Your task to perform on an android device: Go to eBay Image 0: 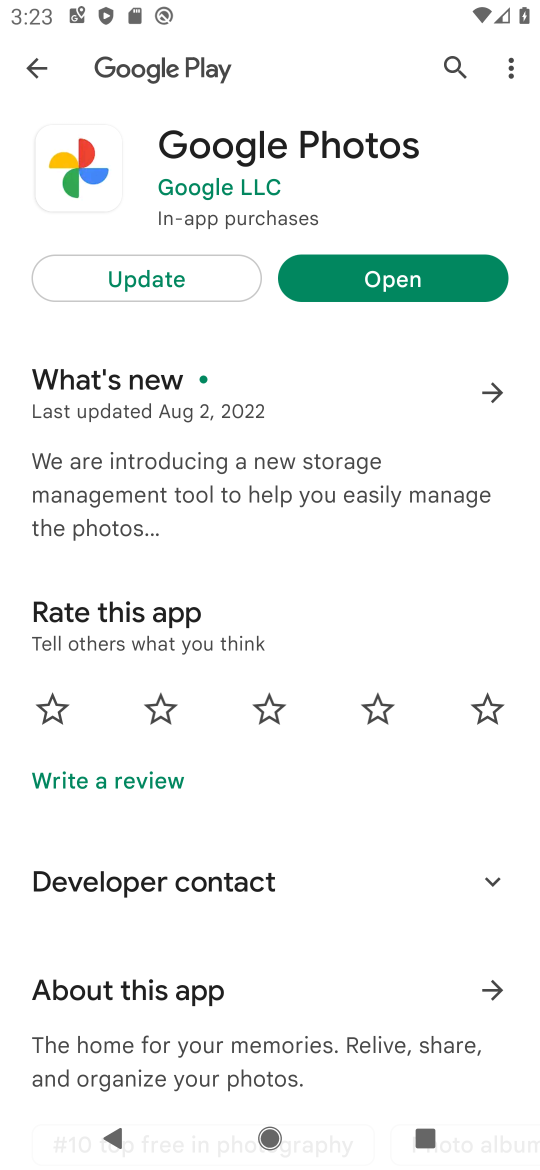
Step 0: press home button
Your task to perform on an android device: Go to eBay Image 1: 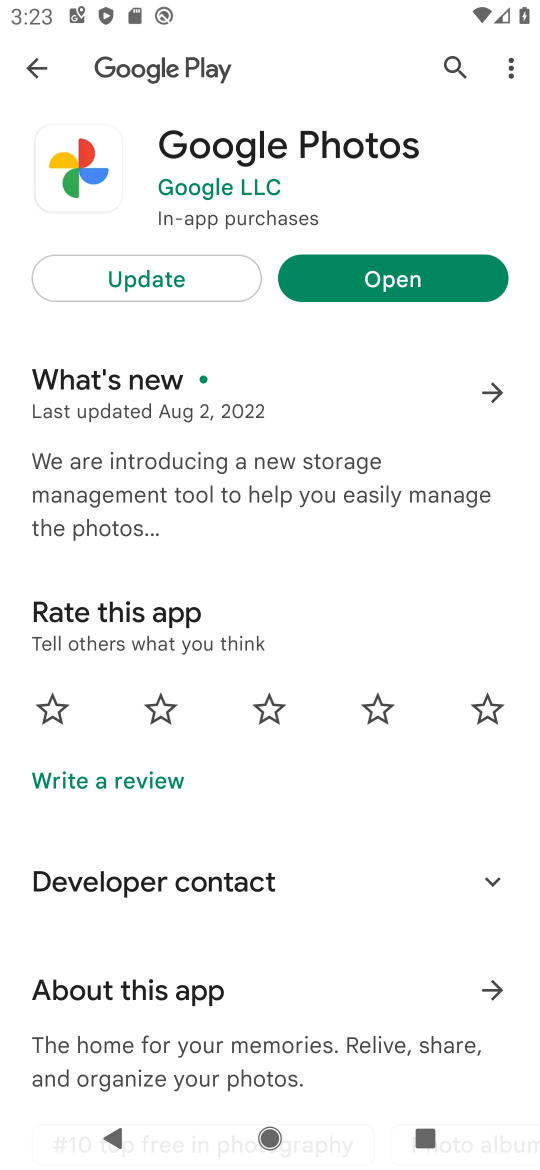
Step 1: press home button
Your task to perform on an android device: Go to eBay Image 2: 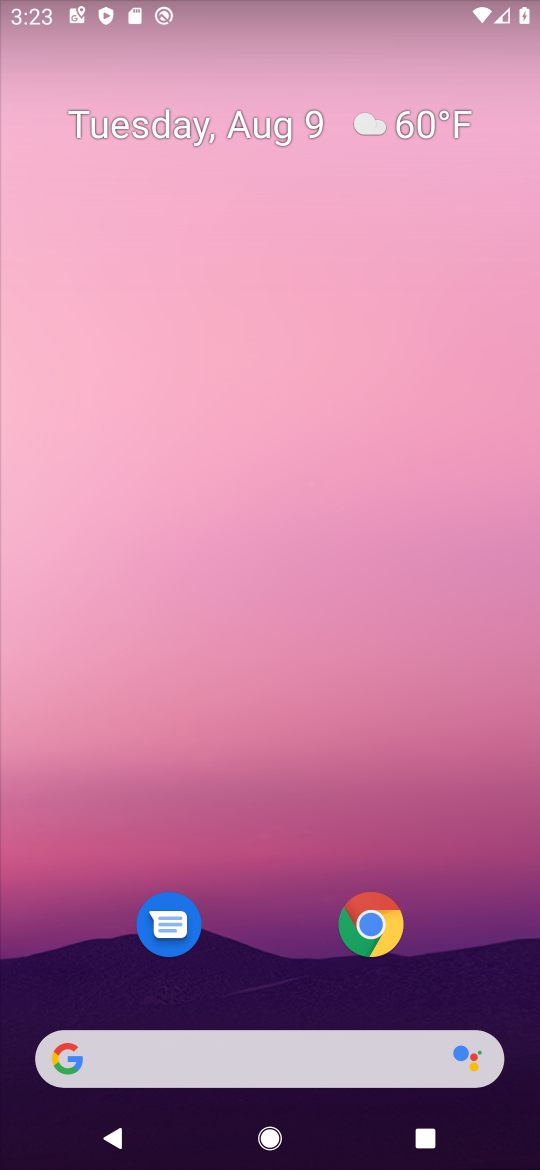
Step 2: click (241, 1062)
Your task to perform on an android device: Go to eBay Image 3: 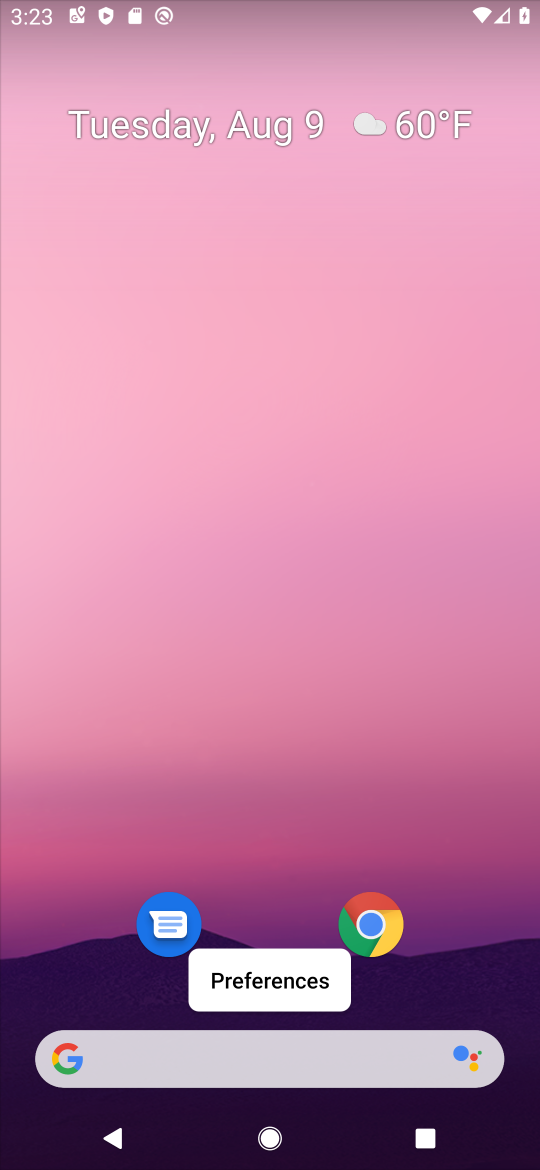
Step 3: click (241, 1062)
Your task to perform on an android device: Go to eBay Image 4: 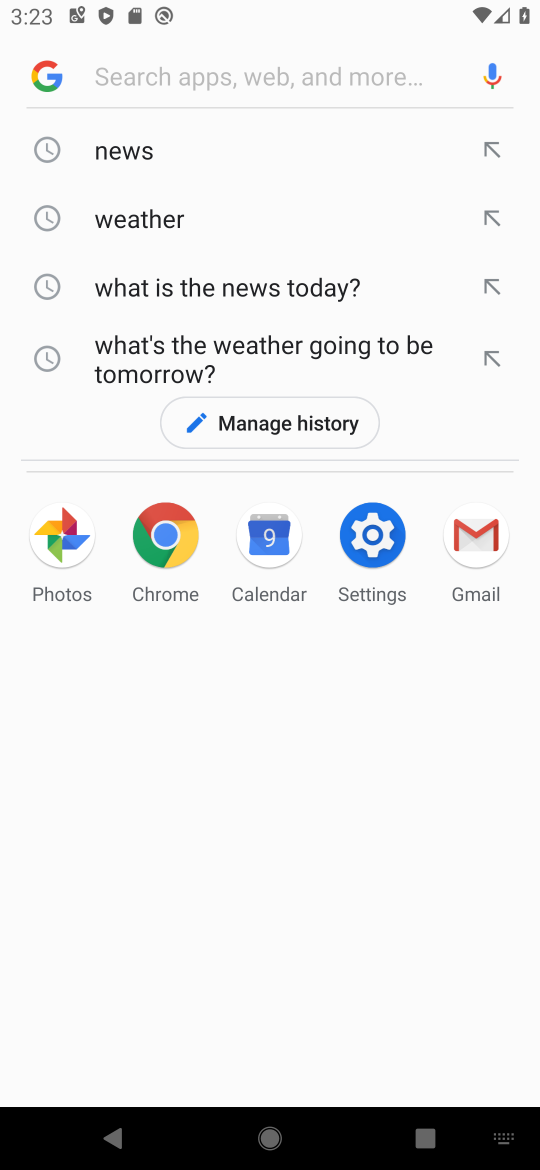
Step 4: type "ebay"
Your task to perform on an android device: Go to eBay Image 5: 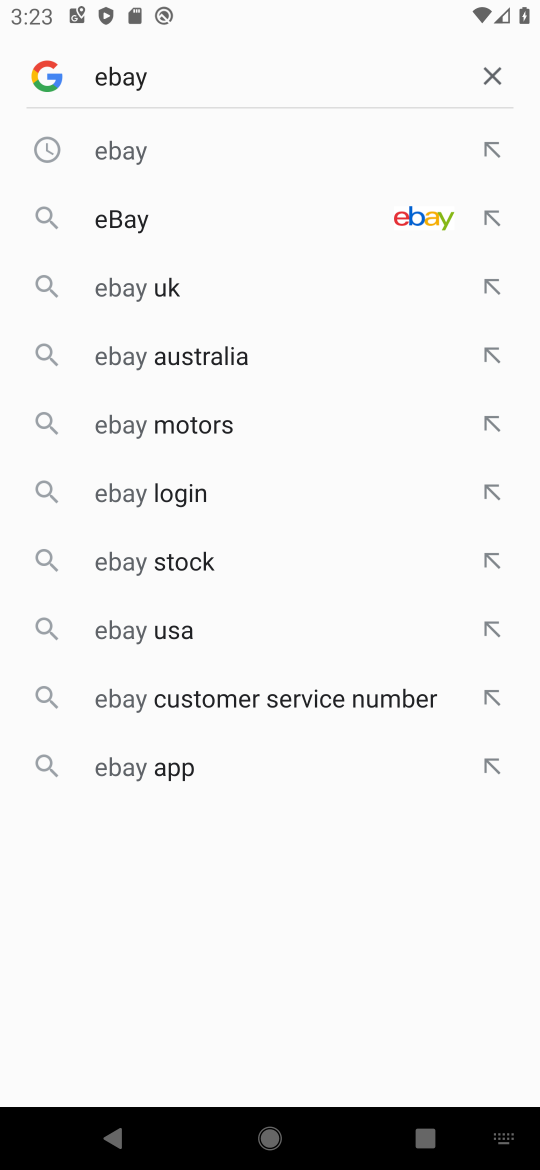
Step 5: click (297, 226)
Your task to perform on an android device: Go to eBay Image 6: 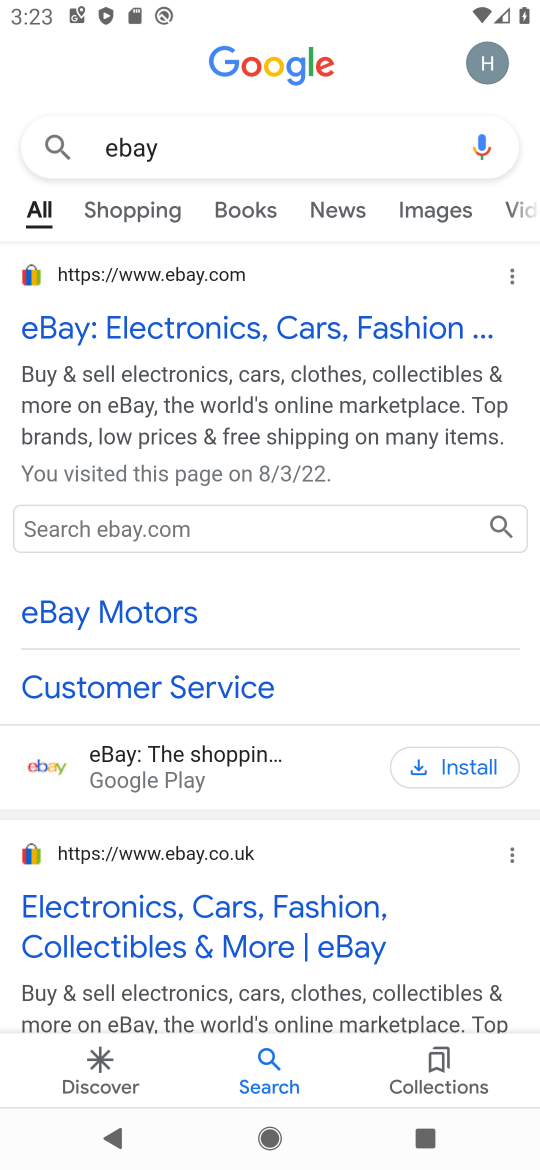
Step 6: click (193, 324)
Your task to perform on an android device: Go to eBay Image 7: 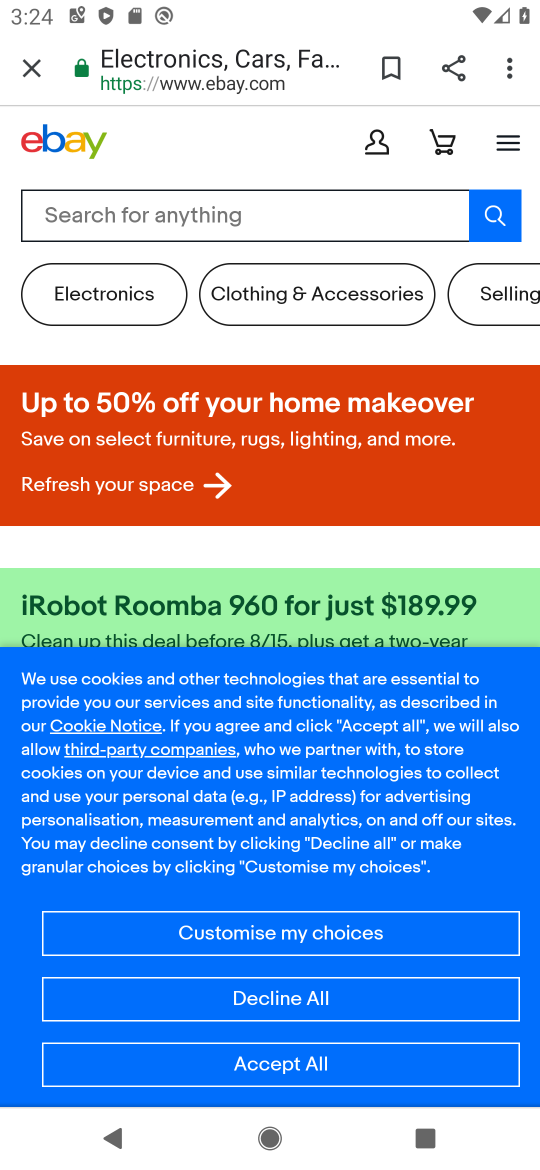
Step 7: task complete